Your task to perform on an android device: open a bookmark in the chrome app Image 0: 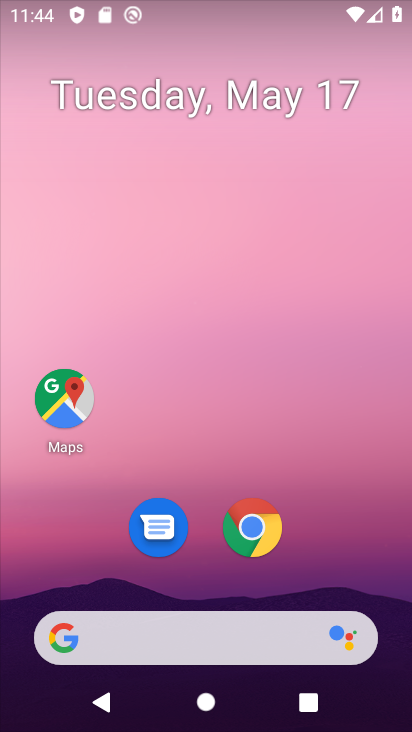
Step 0: click (271, 532)
Your task to perform on an android device: open a bookmark in the chrome app Image 1: 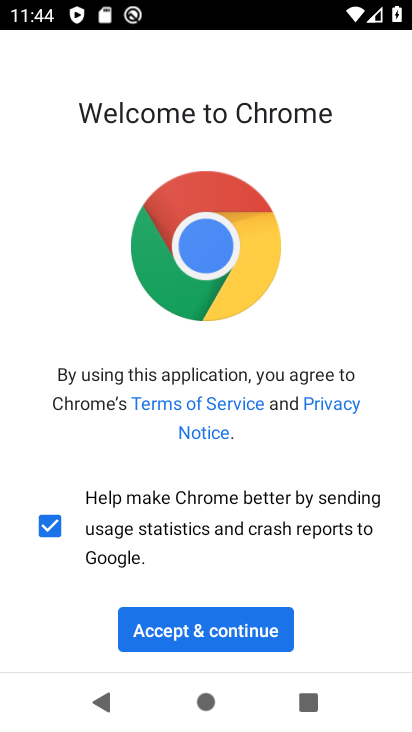
Step 1: click (263, 626)
Your task to perform on an android device: open a bookmark in the chrome app Image 2: 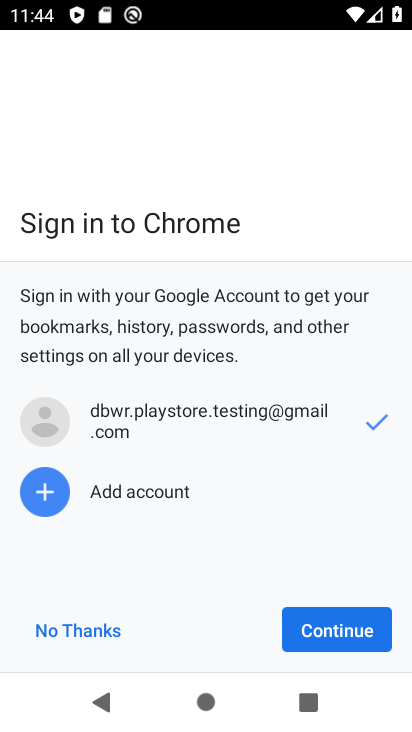
Step 2: click (348, 622)
Your task to perform on an android device: open a bookmark in the chrome app Image 3: 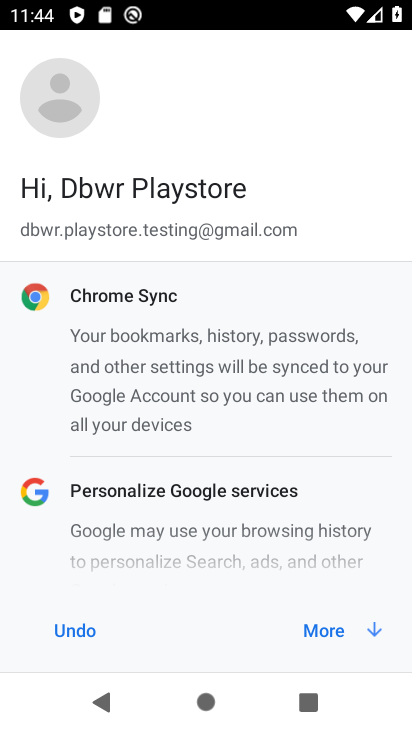
Step 3: click (339, 628)
Your task to perform on an android device: open a bookmark in the chrome app Image 4: 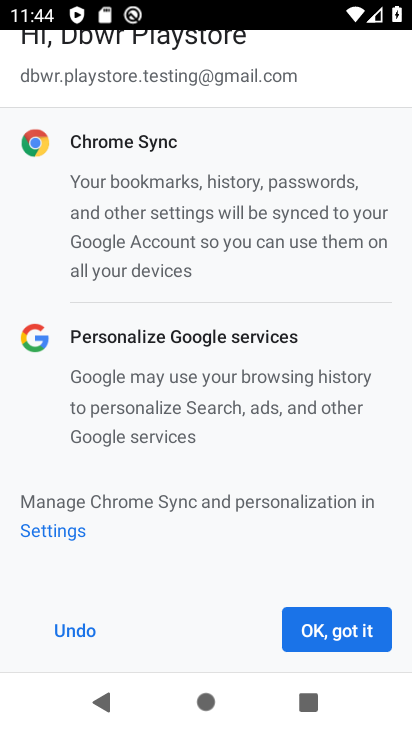
Step 4: click (337, 642)
Your task to perform on an android device: open a bookmark in the chrome app Image 5: 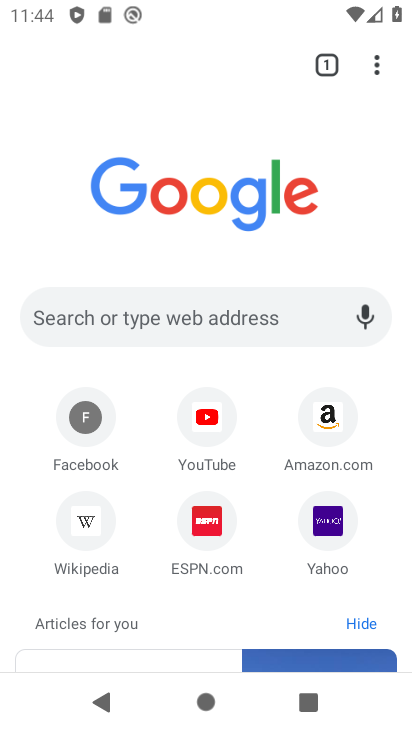
Step 5: click (376, 54)
Your task to perform on an android device: open a bookmark in the chrome app Image 6: 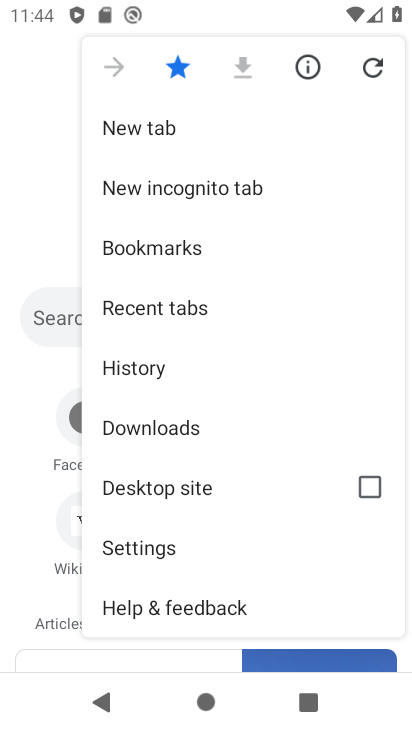
Step 6: click (181, 244)
Your task to perform on an android device: open a bookmark in the chrome app Image 7: 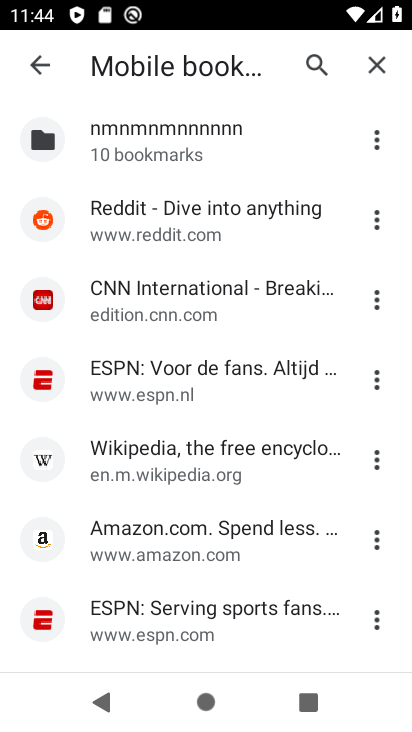
Step 7: click (233, 203)
Your task to perform on an android device: open a bookmark in the chrome app Image 8: 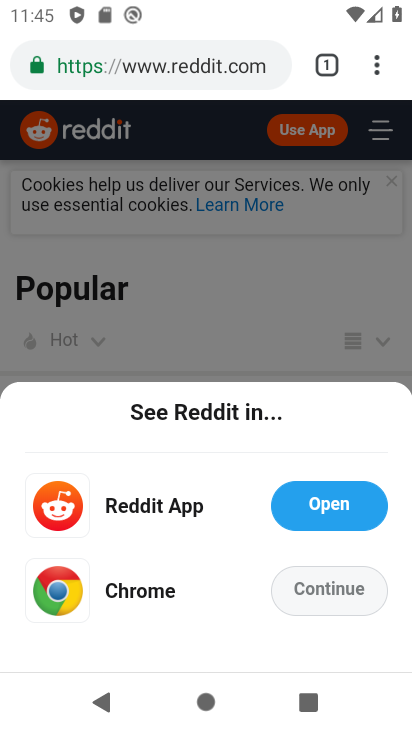
Step 8: task complete